Your task to perform on an android device: open app "Adobe Acrobat Reader" (install if not already installed) Image 0: 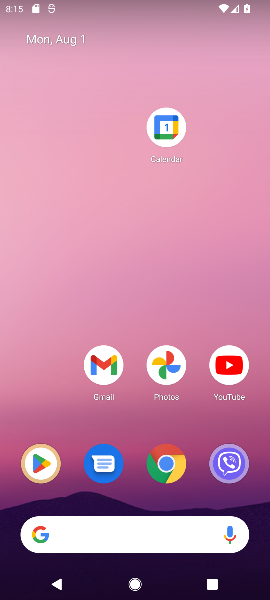
Step 0: click (32, 476)
Your task to perform on an android device: open app "Adobe Acrobat Reader" (install if not already installed) Image 1: 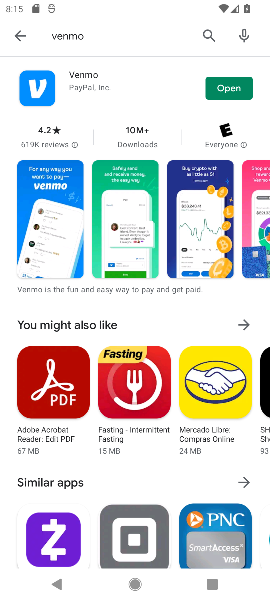
Step 1: click (203, 31)
Your task to perform on an android device: open app "Adobe Acrobat Reader" (install if not already installed) Image 2: 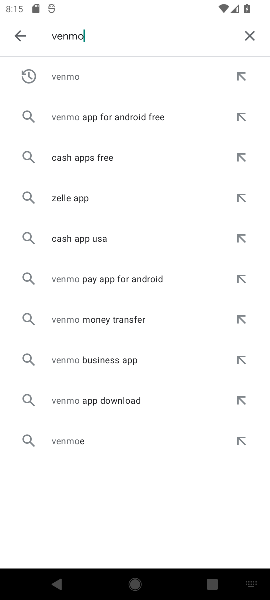
Step 2: click (244, 39)
Your task to perform on an android device: open app "Adobe Acrobat Reader" (install if not already installed) Image 3: 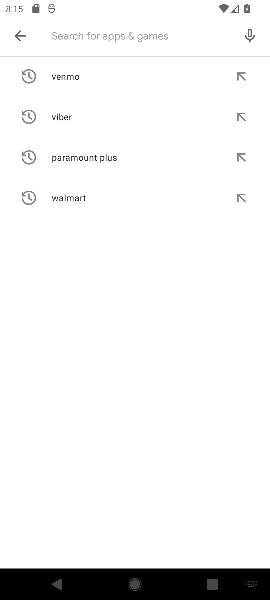
Step 3: type "adobe acrobat reader"
Your task to perform on an android device: open app "Adobe Acrobat Reader" (install if not already installed) Image 4: 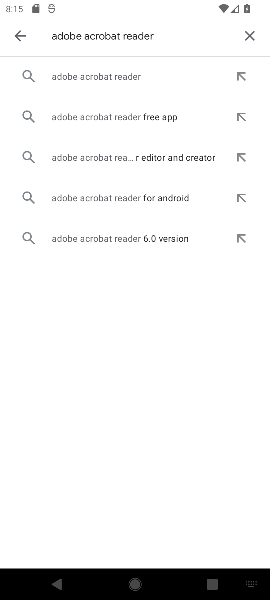
Step 4: click (231, 77)
Your task to perform on an android device: open app "Adobe Acrobat Reader" (install if not already installed) Image 5: 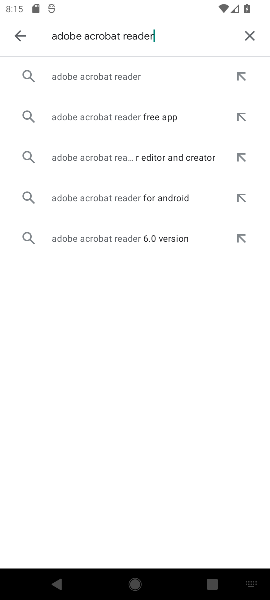
Step 5: click (146, 86)
Your task to perform on an android device: open app "Adobe Acrobat Reader" (install if not already installed) Image 6: 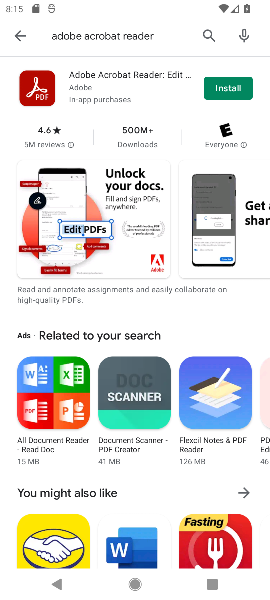
Step 6: click (215, 92)
Your task to perform on an android device: open app "Adobe Acrobat Reader" (install if not already installed) Image 7: 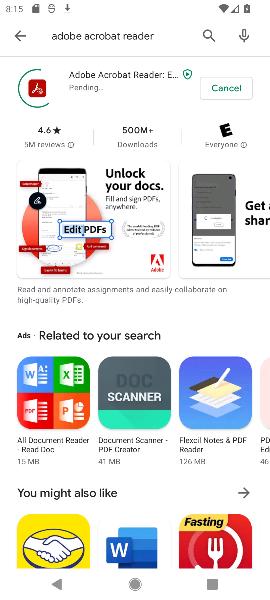
Step 7: task complete